Your task to perform on an android device: What is the news today? Image 0: 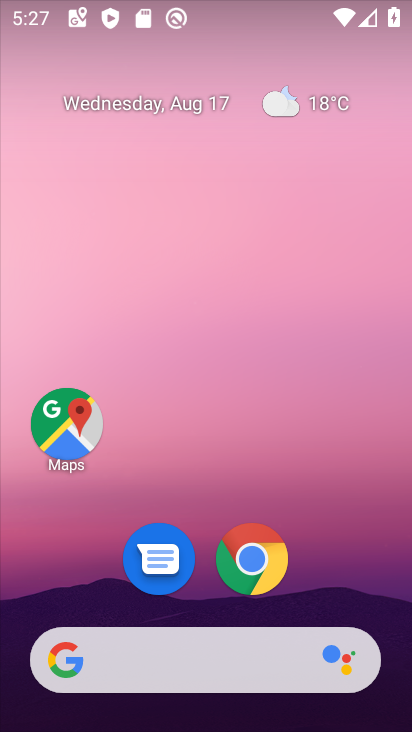
Step 0: click (249, 541)
Your task to perform on an android device: What is the news today? Image 1: 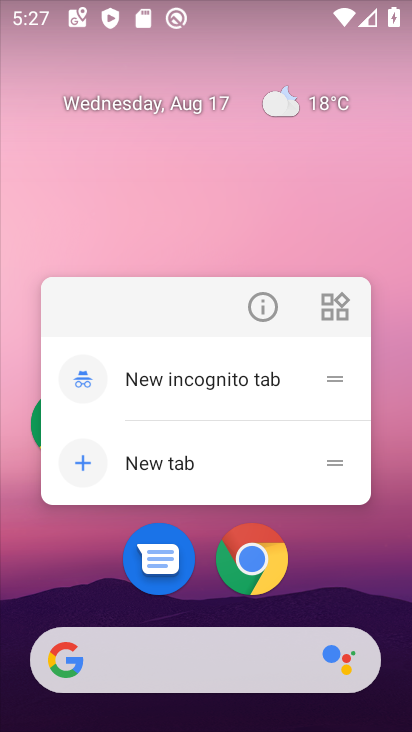
Step 1: click (247, 581)
Your task to perform on an android device: What is the news today? Image 2: 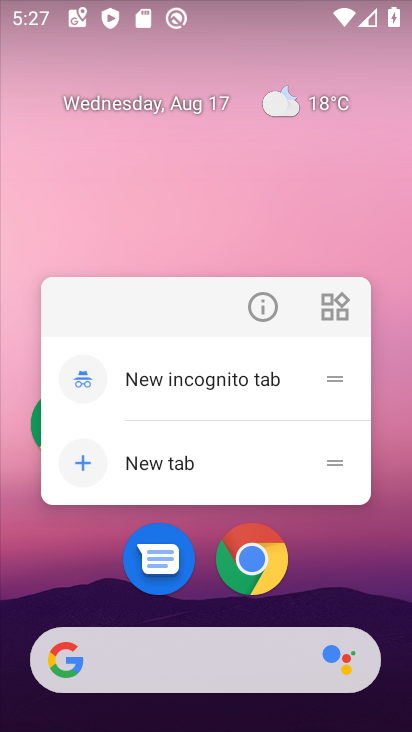
Step 2: click (247, 581)
Your task to perform on an android device: What is the news today? Image 3: 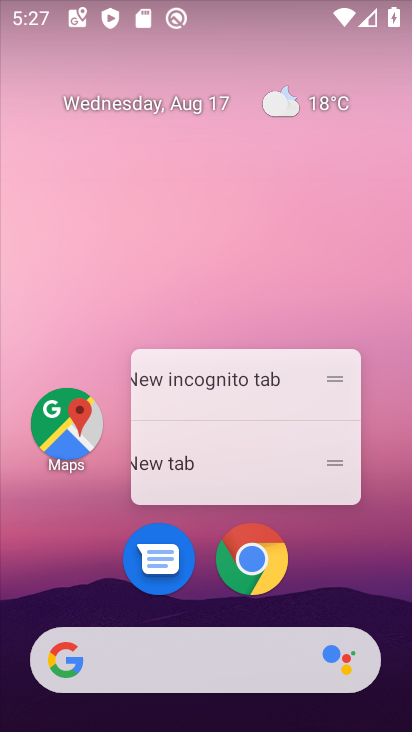
Step 3: click (247, 581)
Your task to perform on an android device: What is the news today? Image 4: 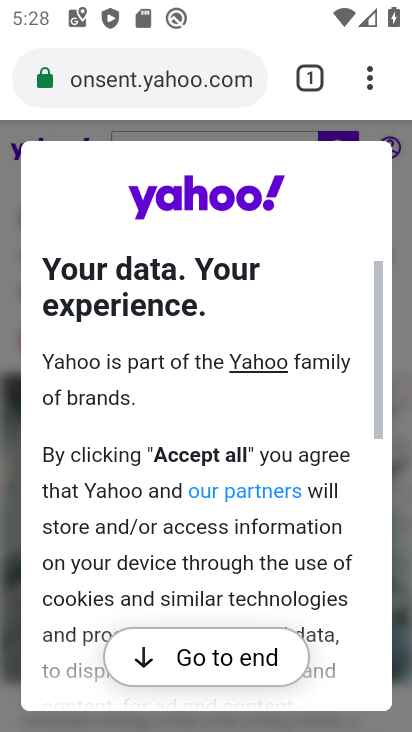
Step 4: click (192, 676)
Your task to perform on an android device: What is the news today? Image 5: 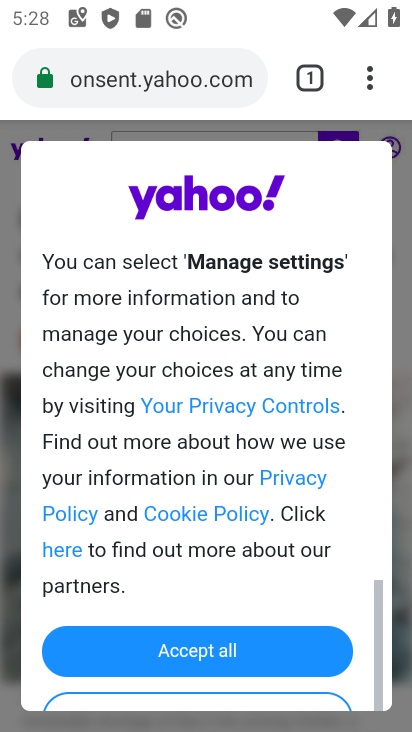
Step 5: drag from (192, 608) to (198, 242)
Your task to perform on an android device: What is the news today? Image 6: 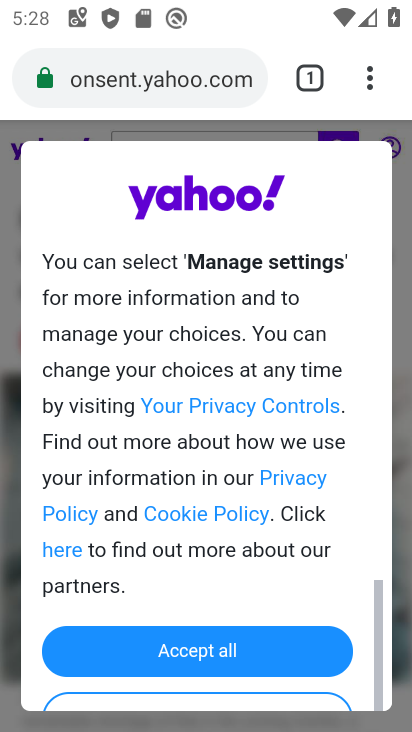
Step 6: click (182, 650)
Your task to perform on an android device: What is the news today? Image 7: 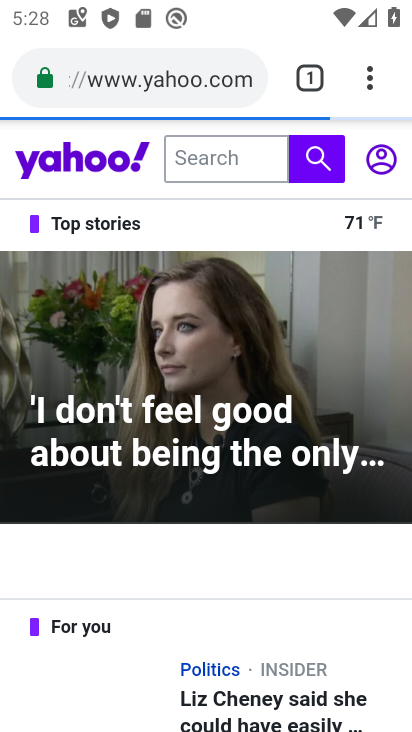
Step 7: click (187, 94)
Your task to perform on an android device: What is the news today? Image 8: 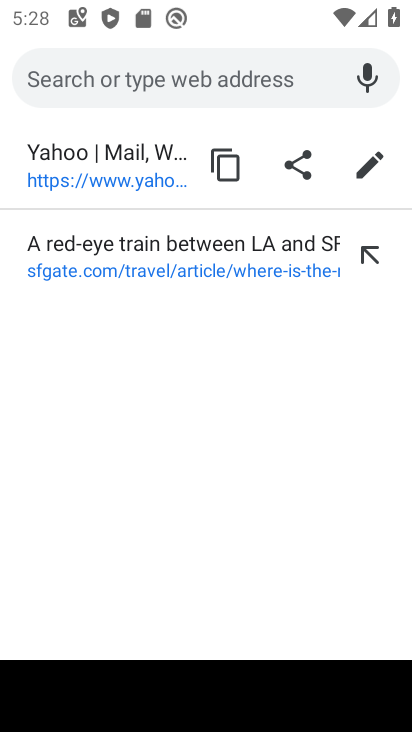
Step 8: type "news today"
Your task to perform on an android device: What is the news today? Image 9: 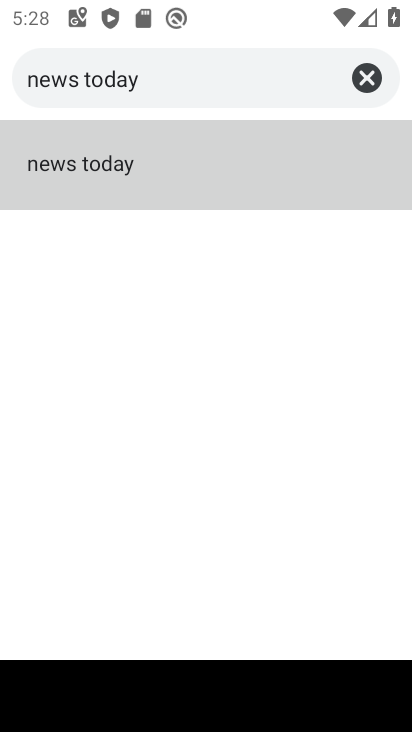
Step 9: click (219, 152)
Your task to perform on an android device: What is the news today? Image 10: 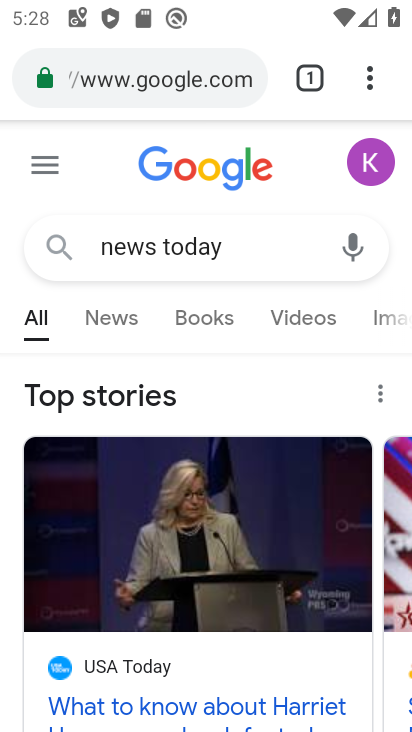
Step 10: task complete